Your task to perform on an android device: check google app version Image 0: 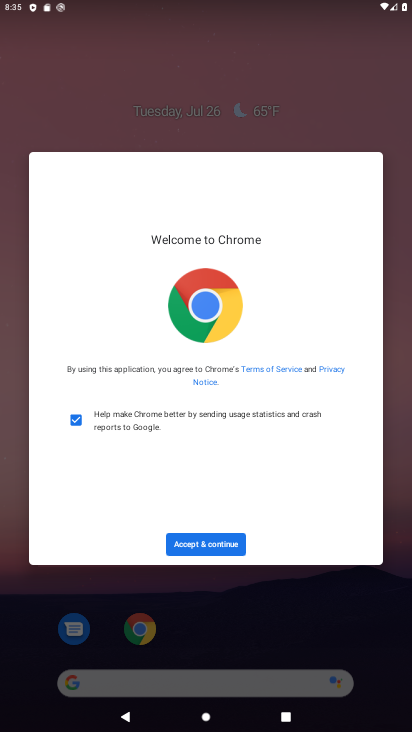
Step 0: press home button
Your task to perform on an android device: check google app version Image 1: 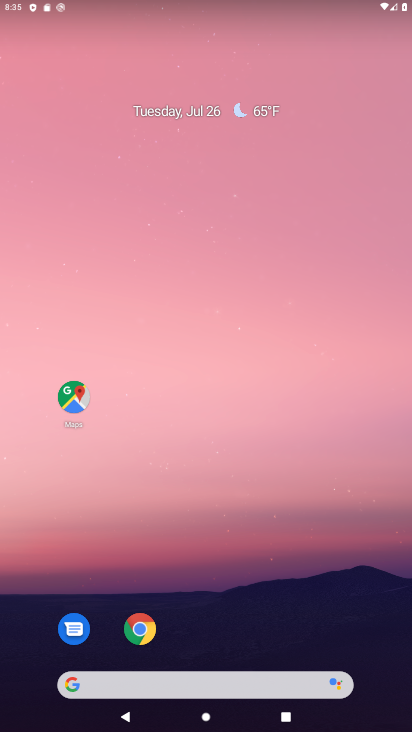
Step 1: drag from (366, 635) to (313, 93)
Your task to perform on an android device: check google app version Image 2: 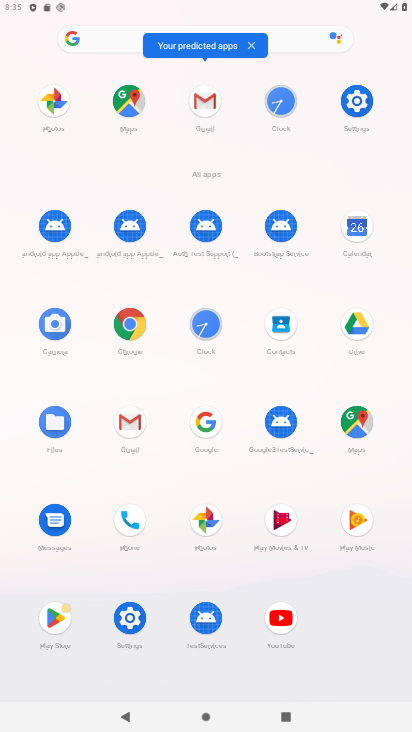
Step 2: click (348, 97)
Your task to perform on an android device: check google app version Image 3: 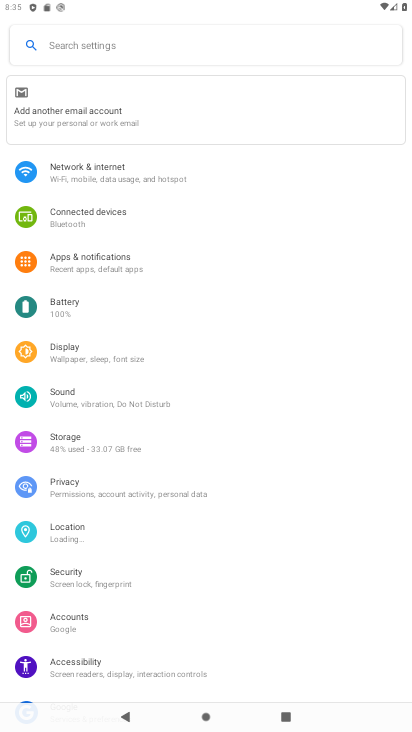
Step 3: drag from (233, 671) to (248, 126)
Your task to perform on an android device: check google app version Image 4: 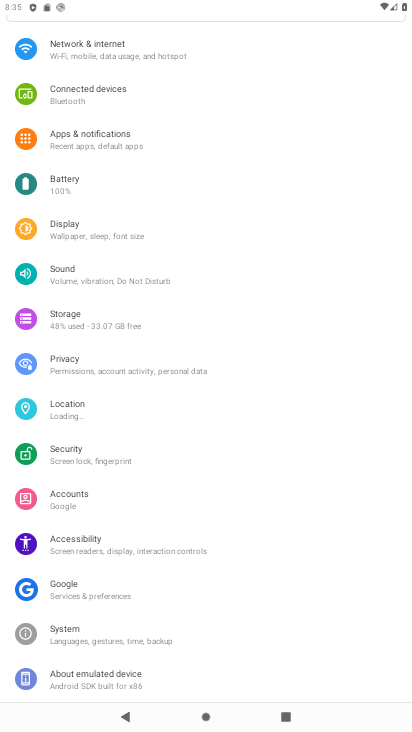
Step 4: click (109, 691)
Your task to perform on an android device: check google app version Image 5: 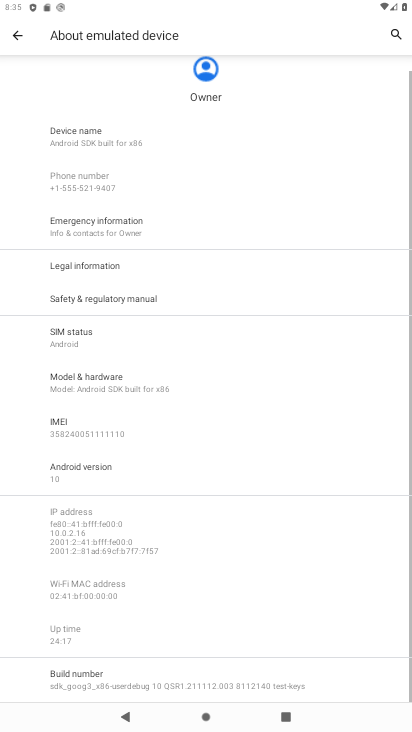
Step 5: drag from (166, 623) to (226, 346)
Your task to perform on an android device: check google app version Image 6: 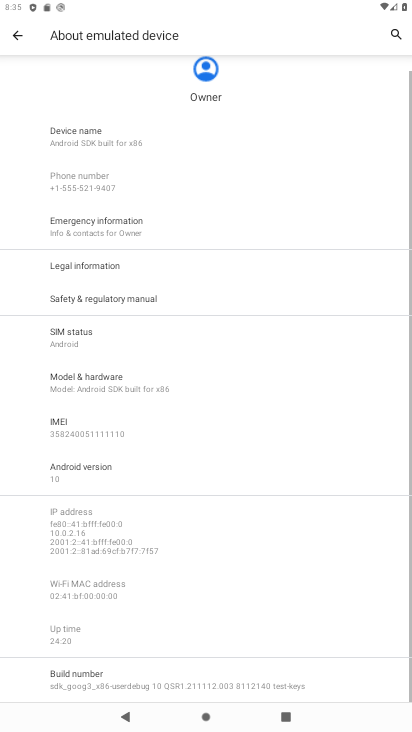
Step 6: click (93, 463)
Your task to perform on an android device: check google app version Image 7: 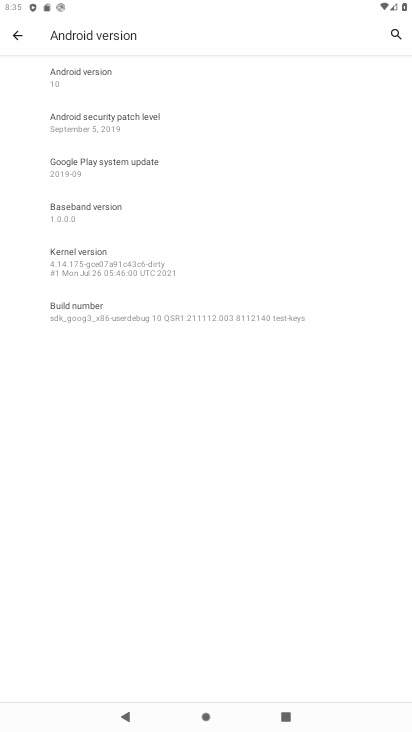
Step 7: task complete